Your task to perform on an android device: Go to Android settings Image 0: 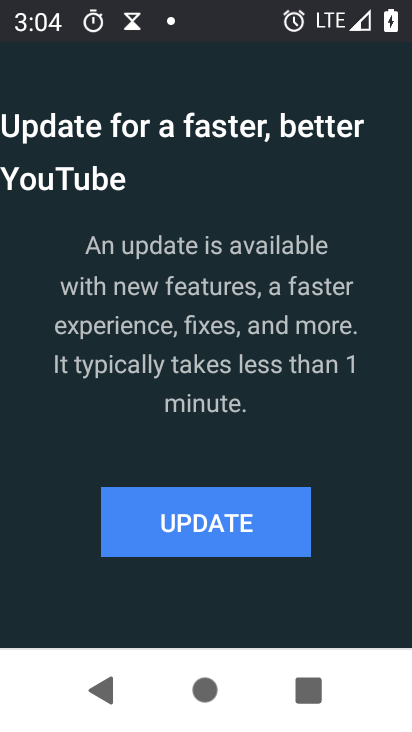
Step 0: press home button
Your task to perform on an android device: Go to Android settings Image 1: 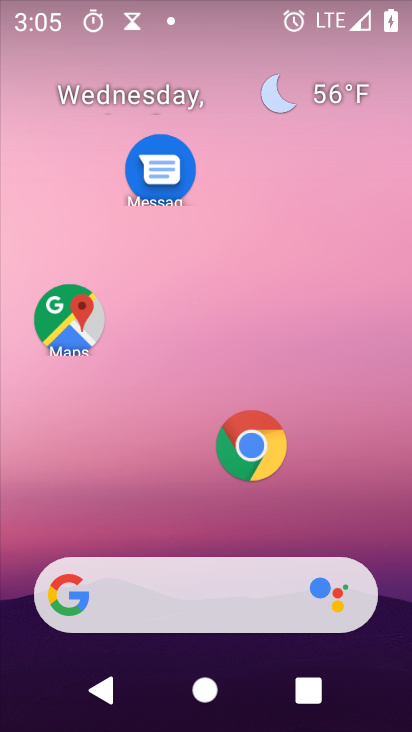
Step 1: drag from (162, 521) to (239, 125)
Your task to perform on an android device: Go to Android settings Image 2: 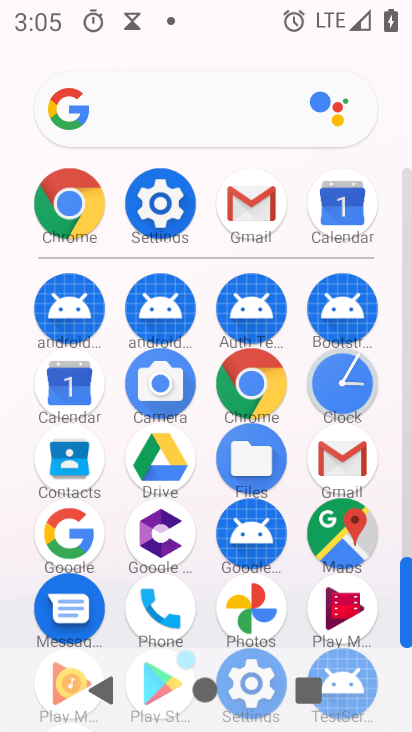
Step 2: drag from (201, 270) to (179, 68)
Your task to perform on an android device: Go to Android settings Image 3: 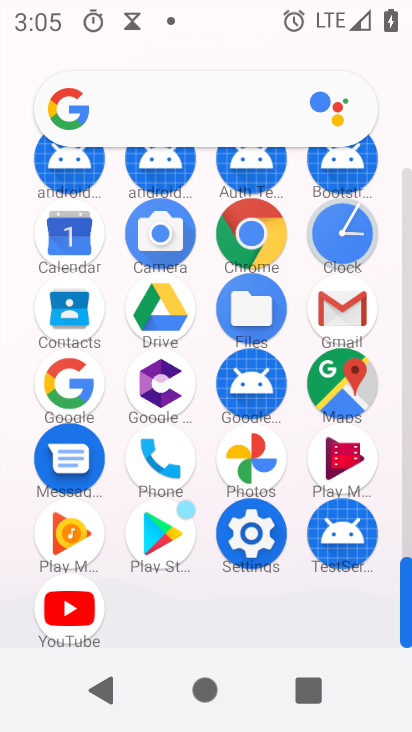
Step 3: click (255, 554)
Your task to perform on an android device: Go to Android settings Image 4: 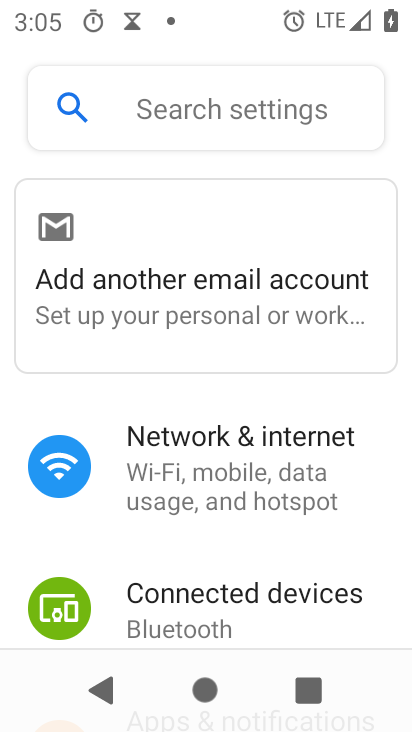
Step 4: task complete